Your task to perform on an android device: change the clock display to digital Image 0: 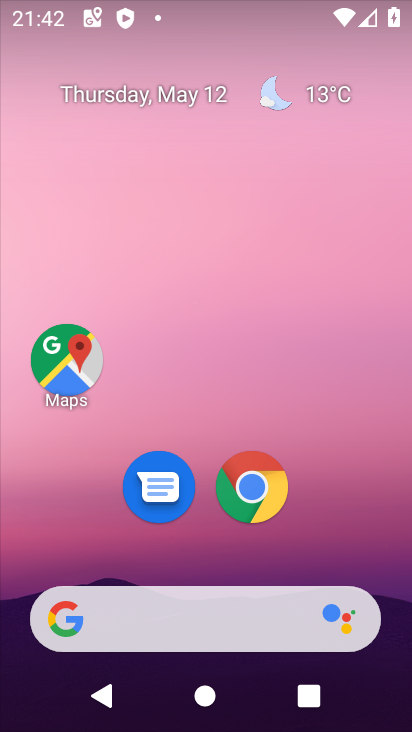
Step 0: click (219, 532)
Your task to perform on an android device: change the clock display to digital Image 1: 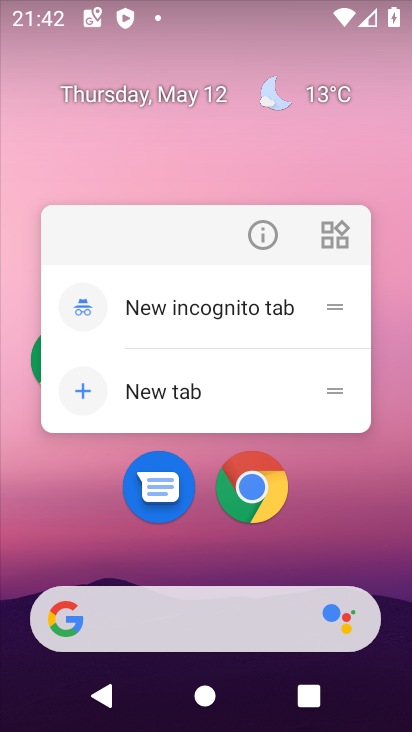
Step 1: drag from (198, 544) to (223, 162)
Your task to perform on an android device: change the clock display to digital Image 2: 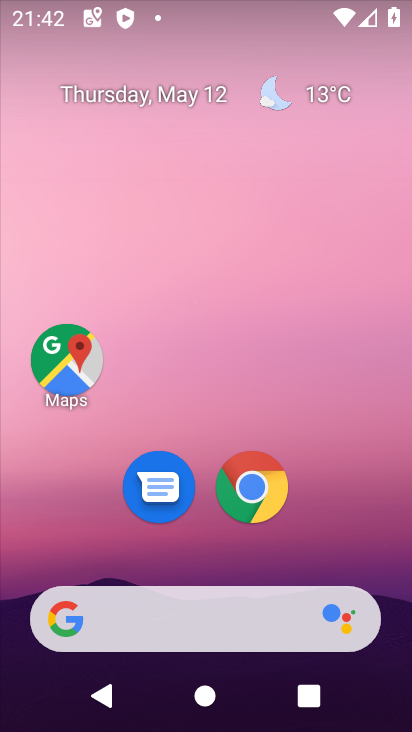
Step 2: drag from (204, 551) to (218, 115)
Your task to perform on an android device: change the clock display to digital Image 3: 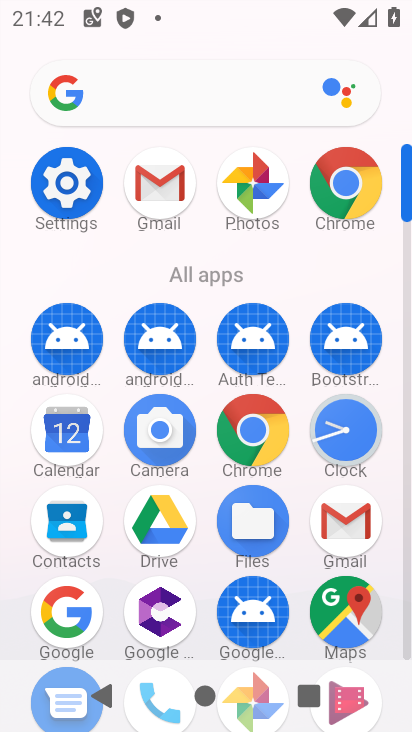
Step 3: click (355, 432)
Your task to perform on an android device: change the clock display to digital Image 4: 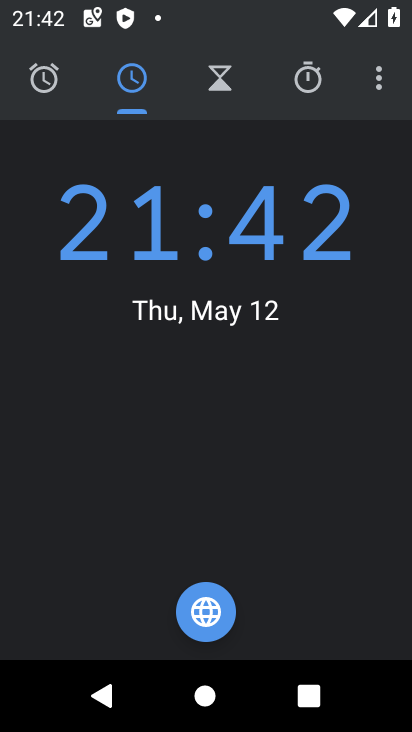
Step 4: click (395, 67)
Your task to perform on an android device: change the clock display to digital Image 5: 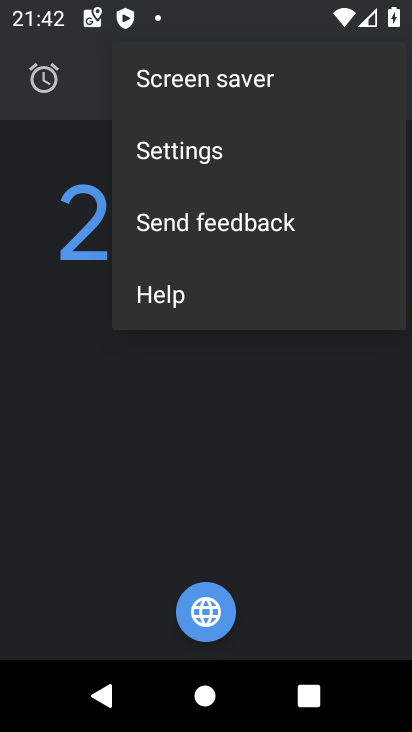
Step 5: click (270, 150)
Your task to perform on an android device: change the clock display to digital Image 6: 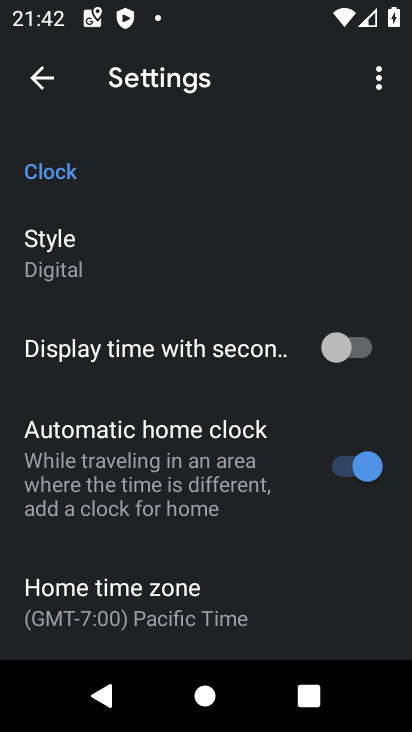
Step 6: task complete